Your task to perform on an android device: check storage Image 0: 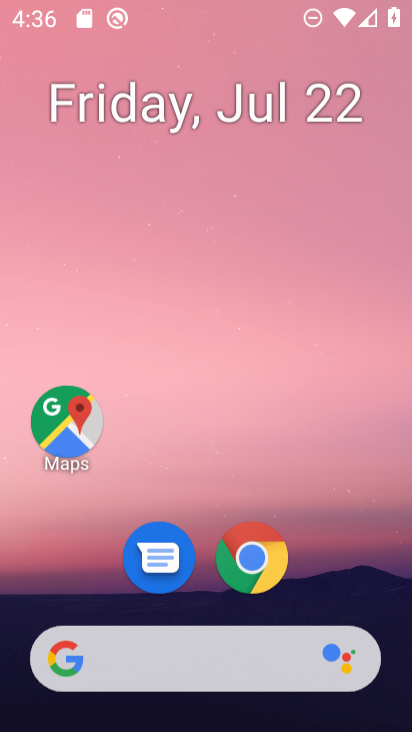
Step 0: drag from (94, 536) to (127, 35)
Your task to perform on an android device: check storage Image 1: 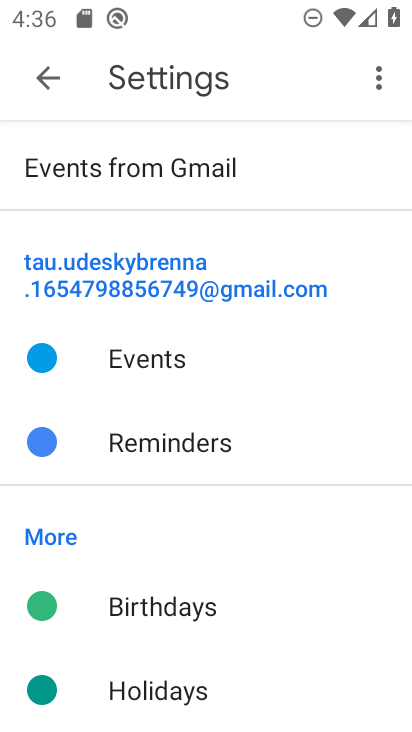
Step 1: press back button
Your task to perform on an android device: check storage Image 2: 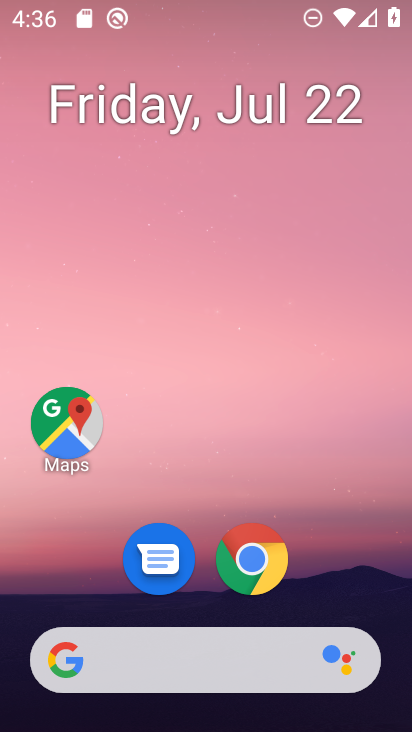
Step 2: drag from (98, 593) to (206, 9)
Your task to perform on an android device: check storage Image 3: 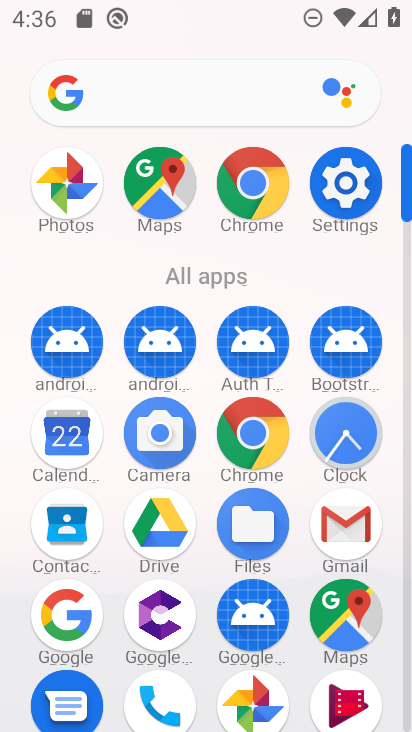
Step 3: click (352, 181)
Your task to perform on an android device: check storage Image 4: 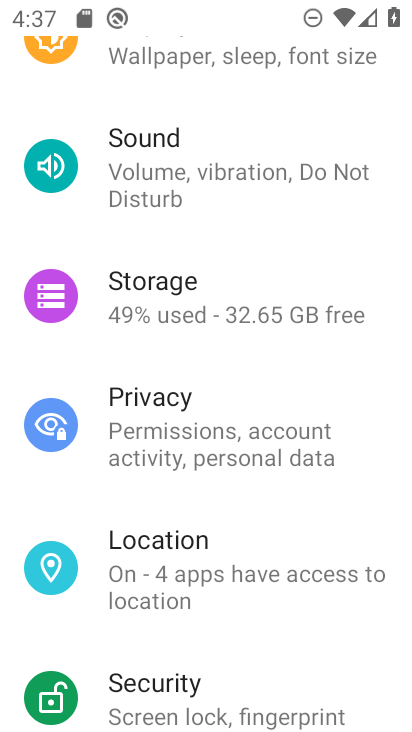
Step 4: click (146, 303)
Your task to perform on an android device: check storage Image 5: 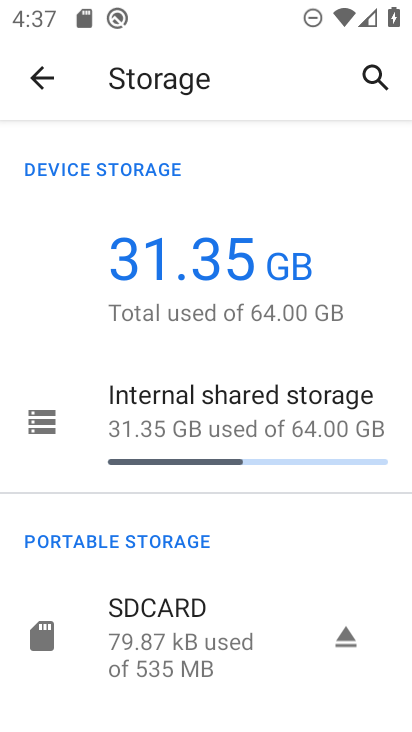
Step 5: task complete